Your task to perform on an android device: Go to Maps Image 0: 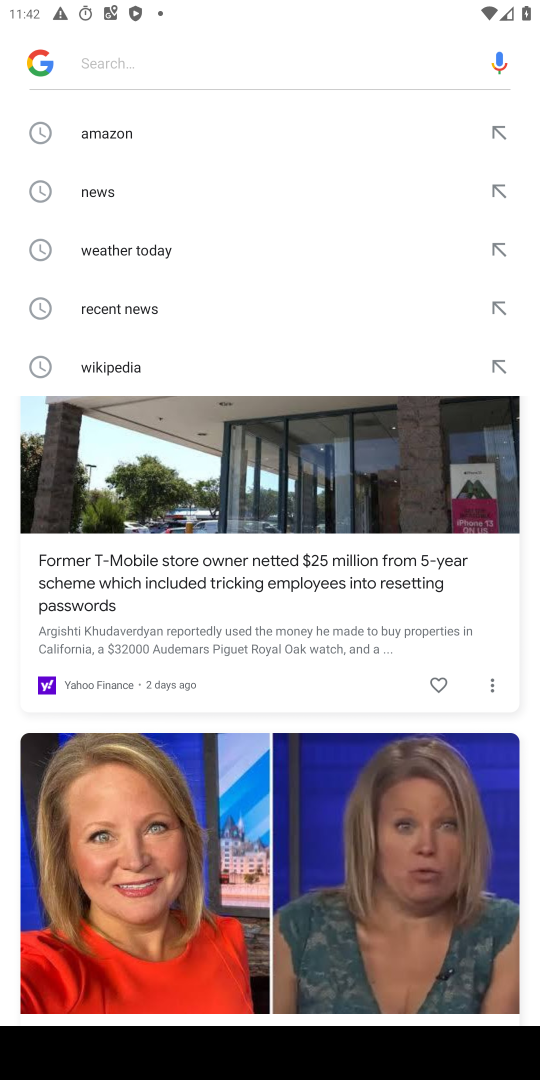
Step 0: press home button
Your task to perform on an android device: Go to Maps Image 1: 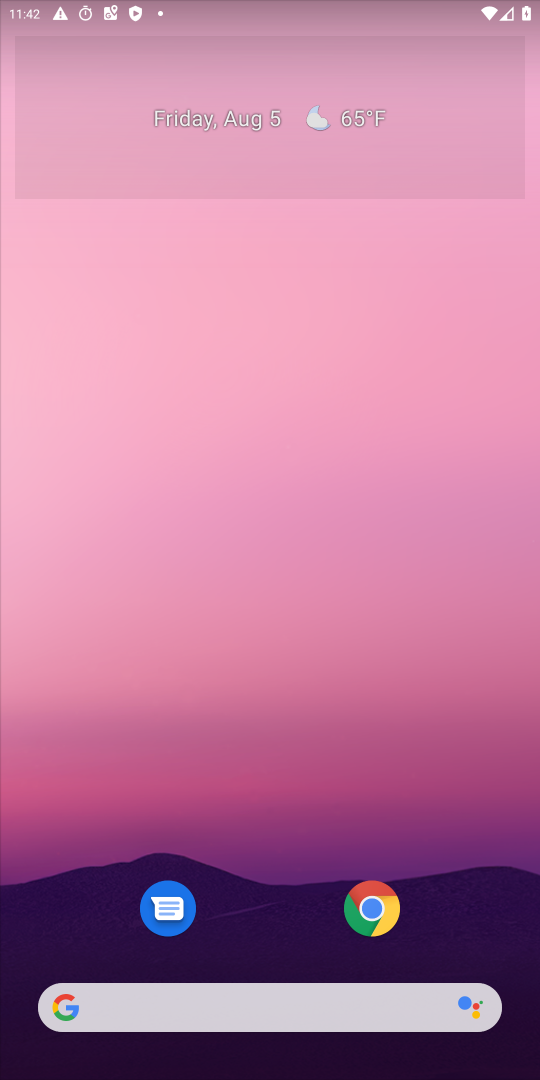
Step 1: drag from (115, 1026) to (232, 564)
Your task to perform on an android device: Go to Maps Image 2: 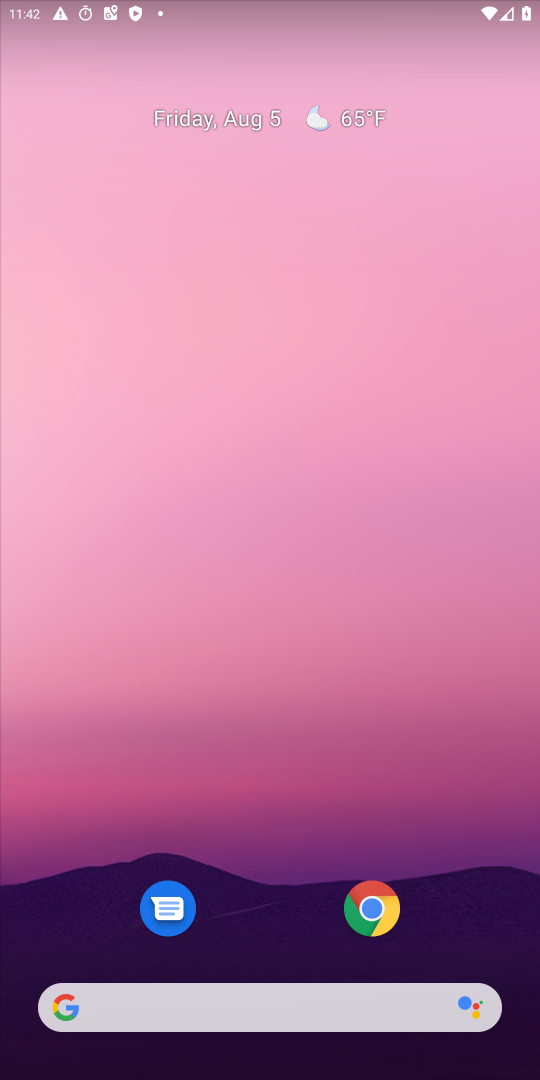
Step 2: drag from (57, 1026) to (0, 327)
Your task to perform on an android device: Go to Maps Image 3: 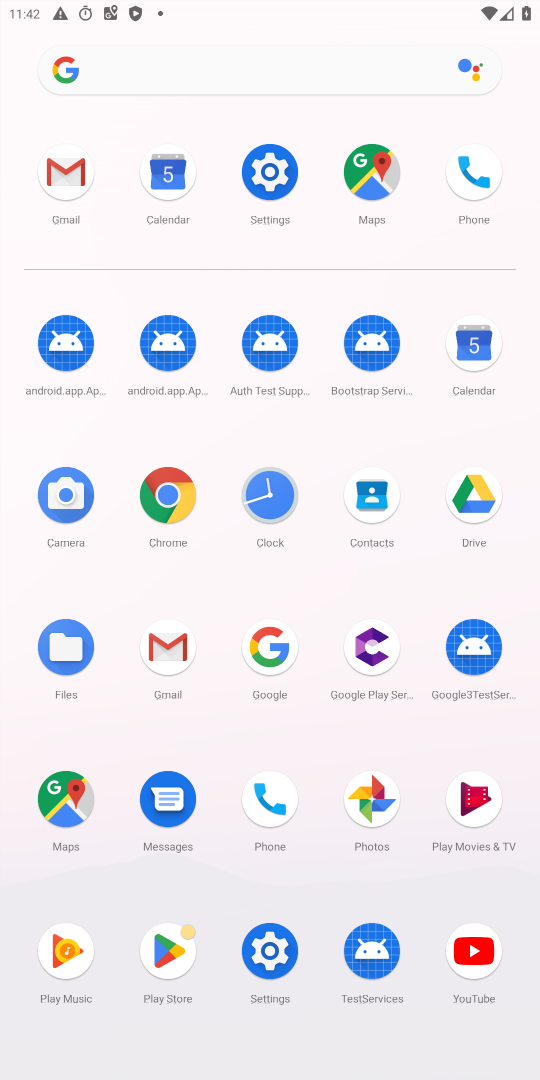
Step 3: click (43, 801)
Your task to perform on an android device: Go to Maps Image 4: 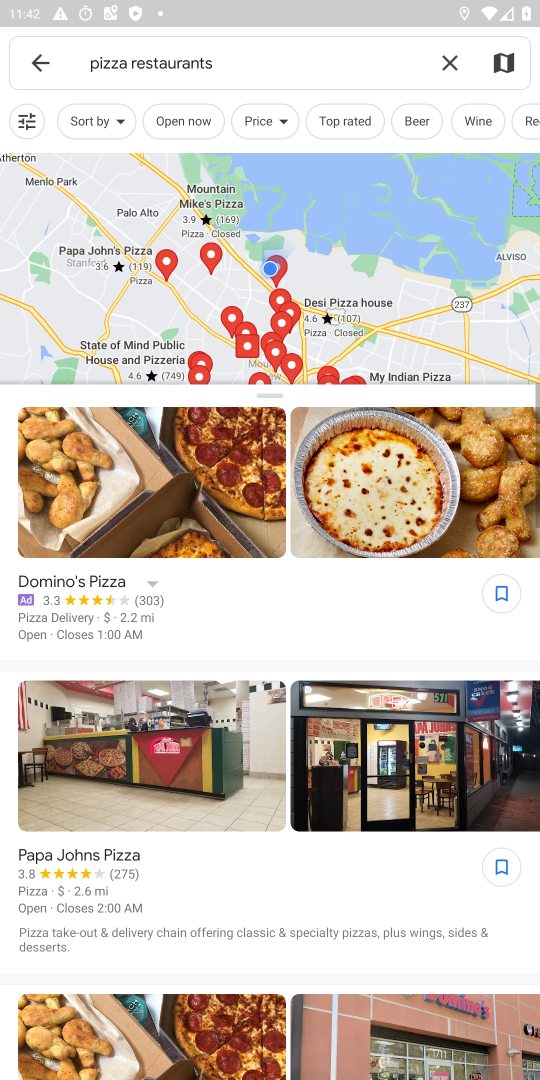
Step 4: click (38, 52)
Your task to perform on an android device: Go to Maps Image 5: 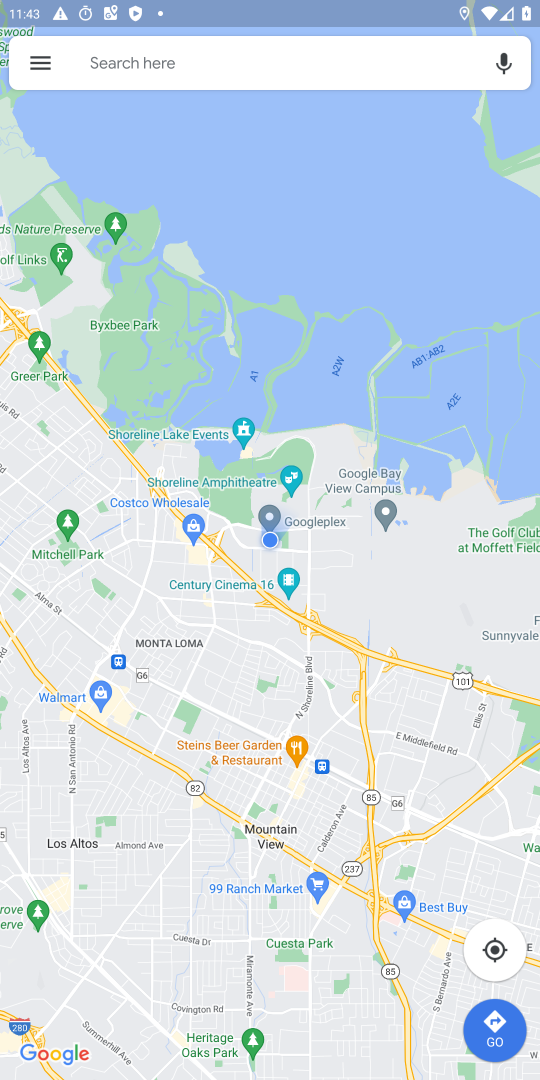
Step 5: task complete